Your task to perform on an android device: uninstall "Life360: Find Family & Friends" Image 0: 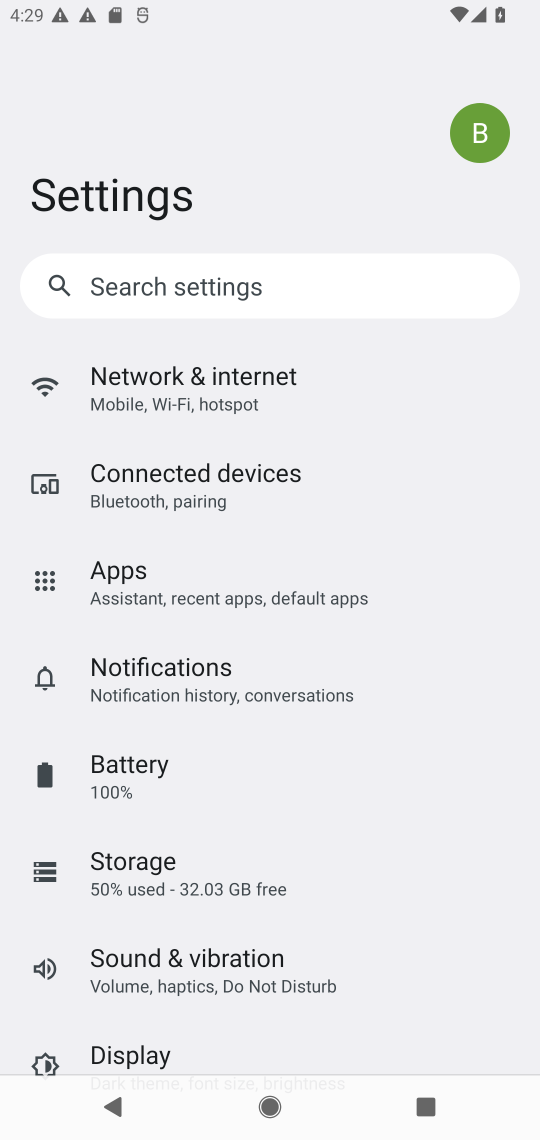
Step 0: press home button
Your task to perform on an android device: uninstall "Life360: Find Family & Friends" Image 1: 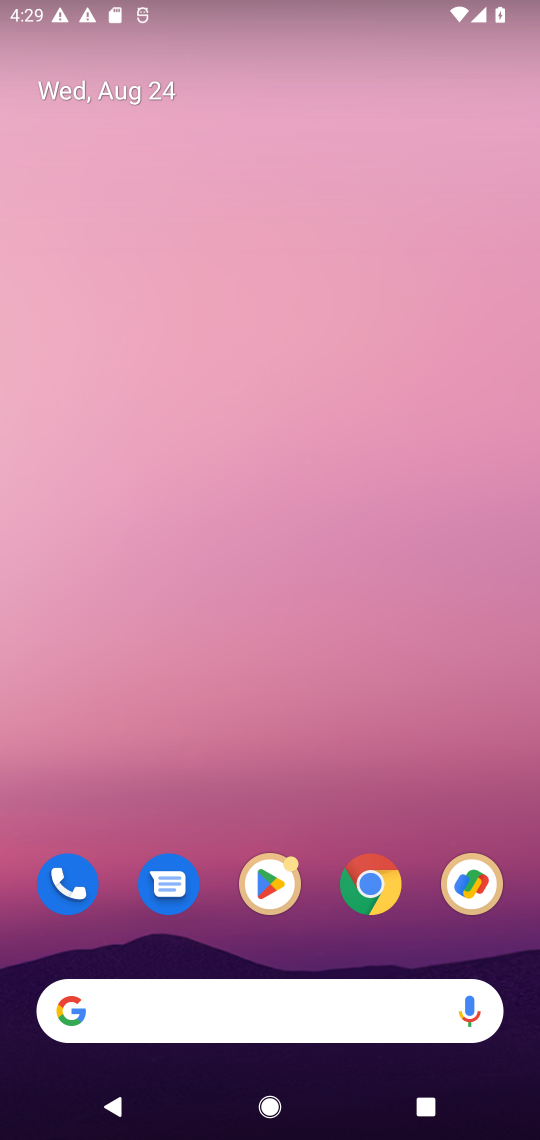
Step 1: click (262, 901)
Your task to perform on an android device: uninstall "Life360: Find Family & Friends" Image 2: 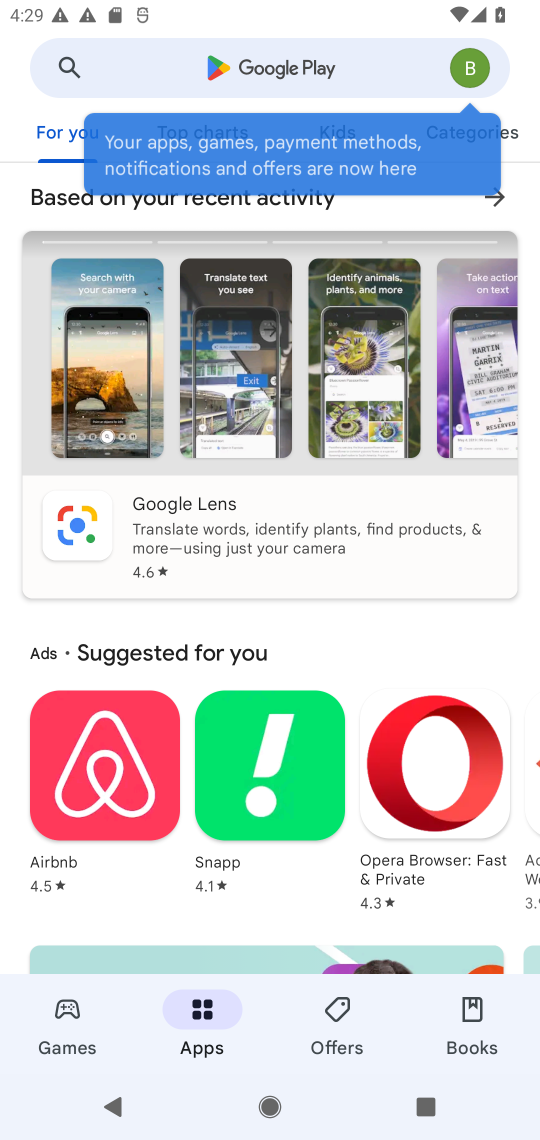
Step 2: click (237, 81)
Your task to perform on an android device: uninstall "Life360: Find Family & Friends" Image 3: 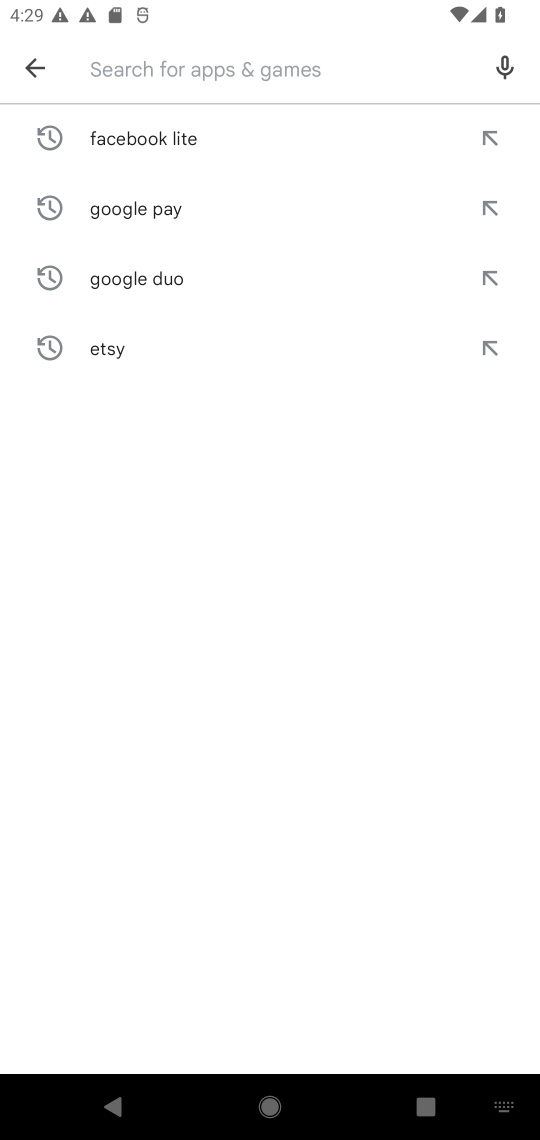
Step 3: type "Life360: Find Family & Friends"
Your task to perform on an android device: uninstall "Life360: Find Family & Friends" Image 4: 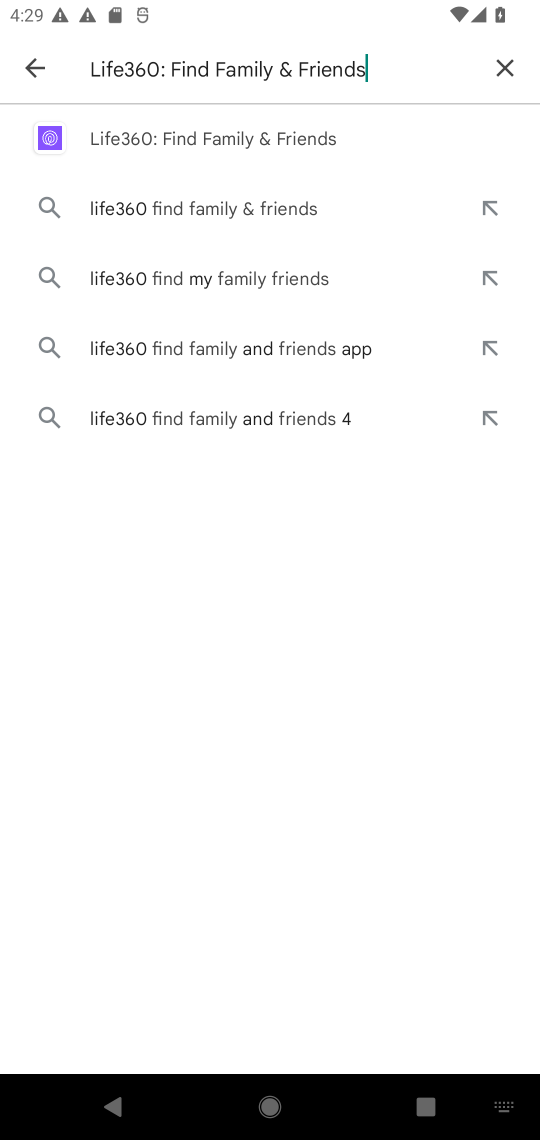
Step 4: click (115, 137)
Your task to perform on an android device: uninstall "Life360: Find Family & Friends" Image 5: 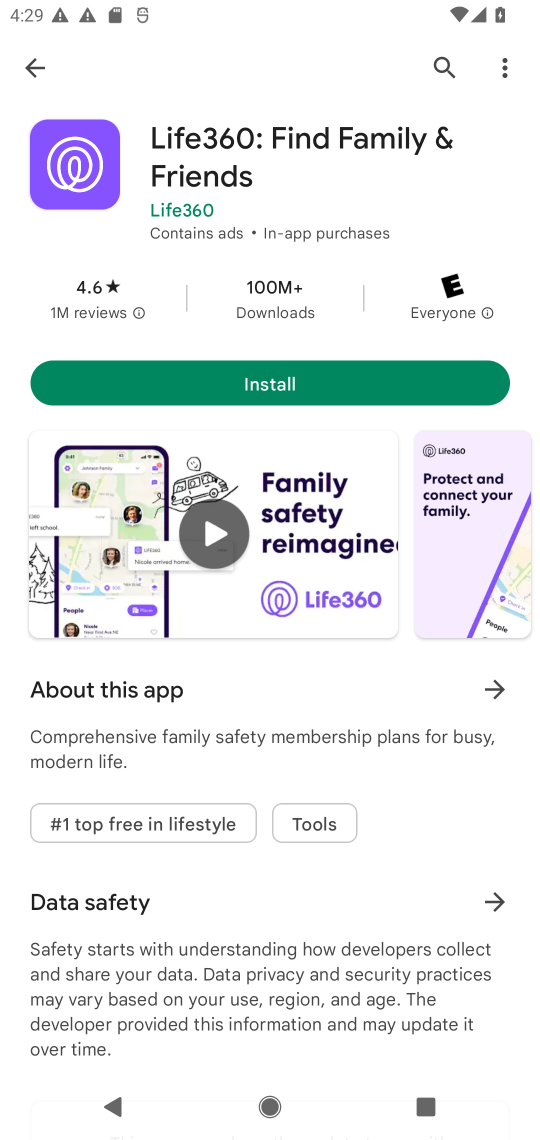
Step 5: task complete